Your task to perform on an android device: Show me popular games on the Play Store Image 0: 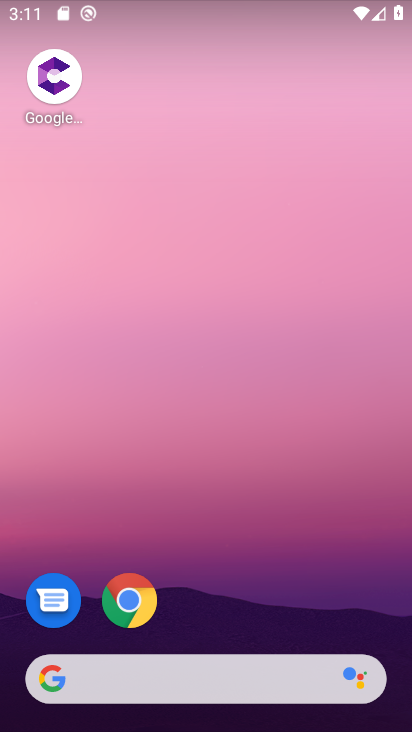
Step 0: drag from (306, 569) to (328, 172)
Your task to perform on an android device: Show me popular games on the Play Store Image 1: 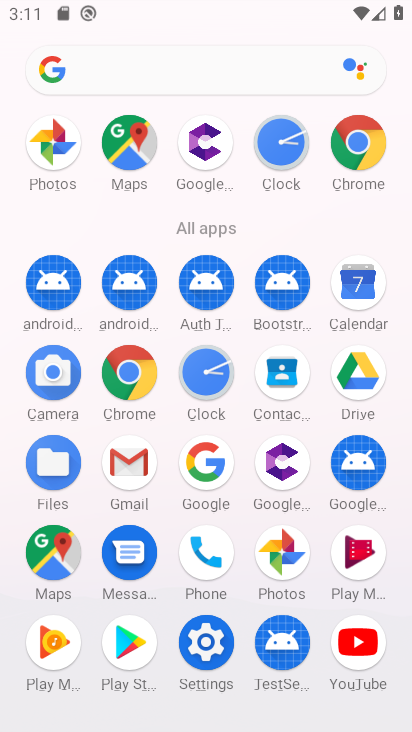
Step 1: click (138, 643)
Your task to perform on an android device: Show me popular games on the Play Store Image 2: 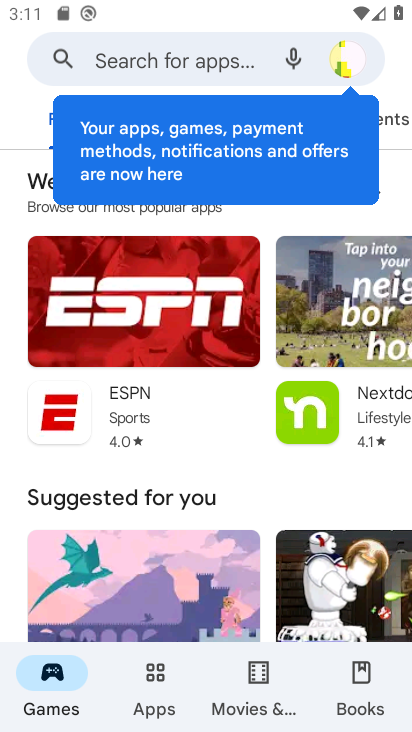
Step 2: task complete